Your task to perform on an android device: Go to network settings Image 0: 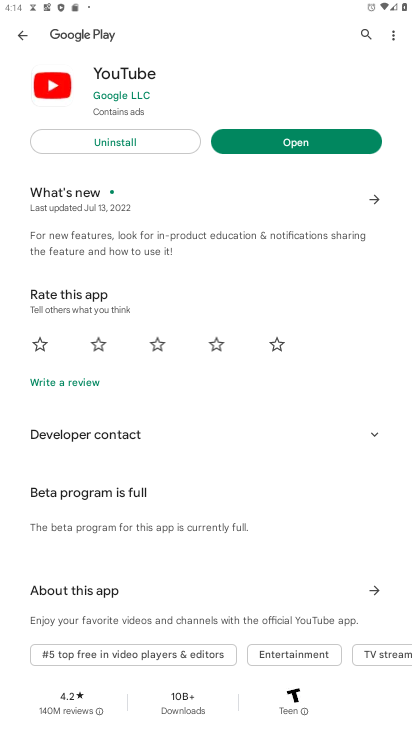
Step 0: press home button
Your task to perform on an android device: Go to network settings Image 1: 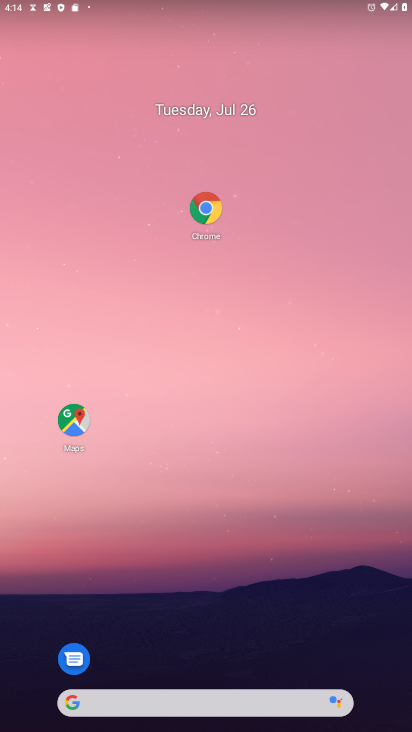
Step 1: drag from (167, 652) to (180, 16)
Your task to perform on an android device: Go to network settings Image 2: 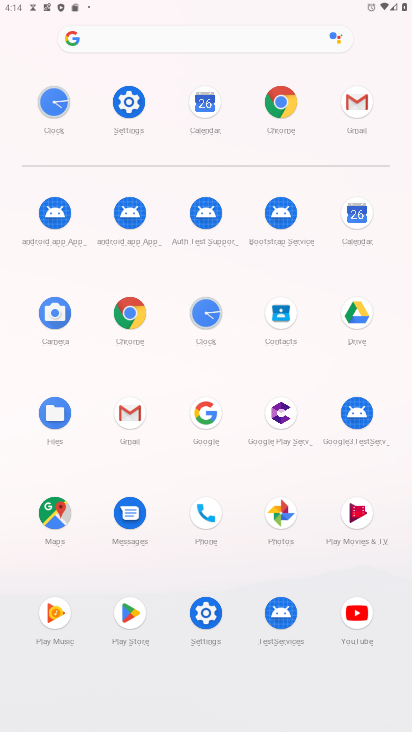
Step 2: click (127, 104)
Your task to perform on an android device: Go to network settings Image 3: 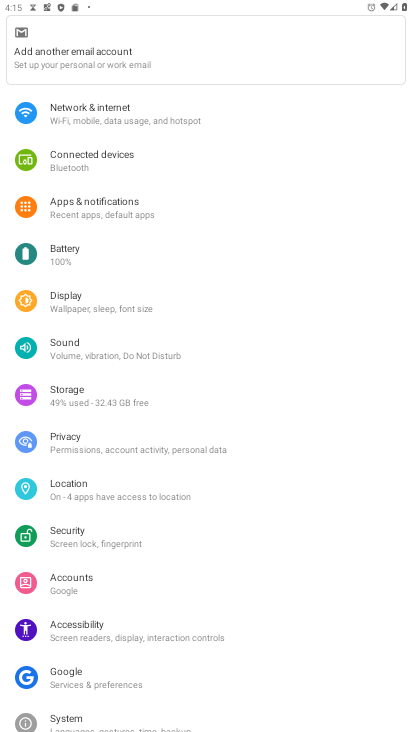
Step 3: click (98, 115)
Your task to perform on an android device: Go to network settings Image 4: 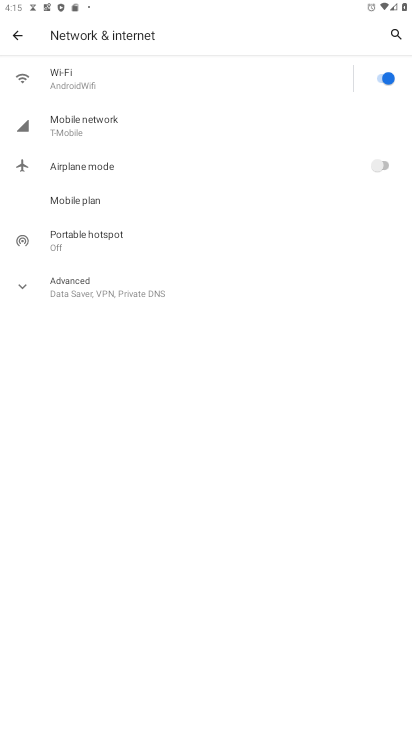
Step 4: task complete